Your task to perform on an android device: change the clock display to digital Image 0: 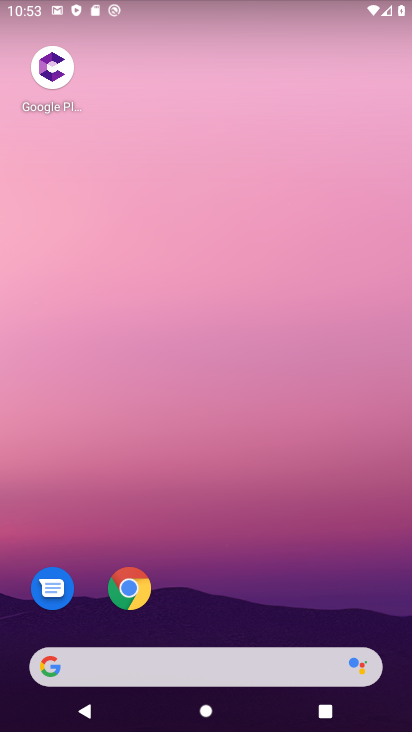
Step 0: drag from (203, 643) to (184, 57)
Your task to perform on an android device: change the clock display to digital Image 1: 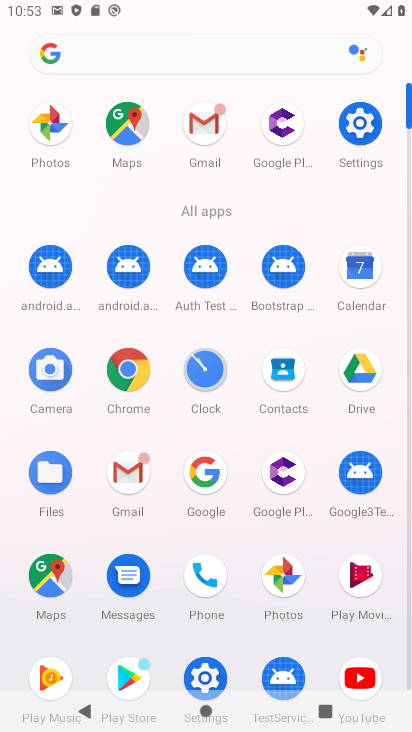
Step 1: click (211, 374)
Your task to perform on an android device: change the clock display to digital Image 2: 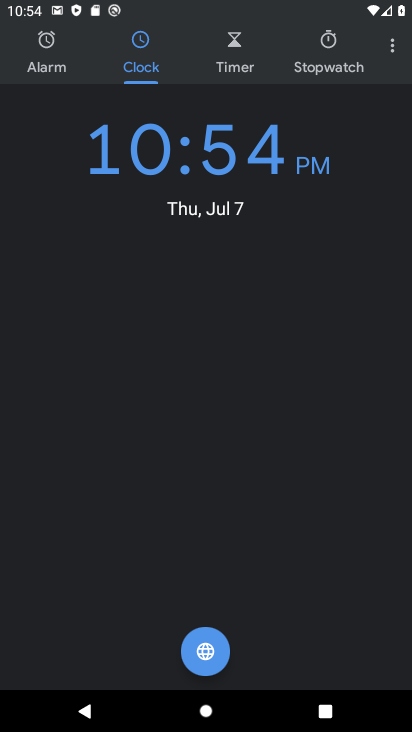
Step 2: click (386, 44)
Your task to perform on an android device: change the clock display to digital Image 3: 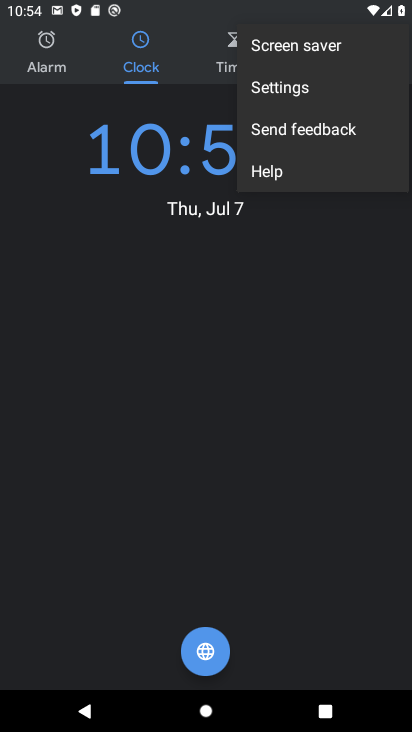
Step 3: click (294, 96)
Your task to perform on an android device: change the clock display to digital Image 4: 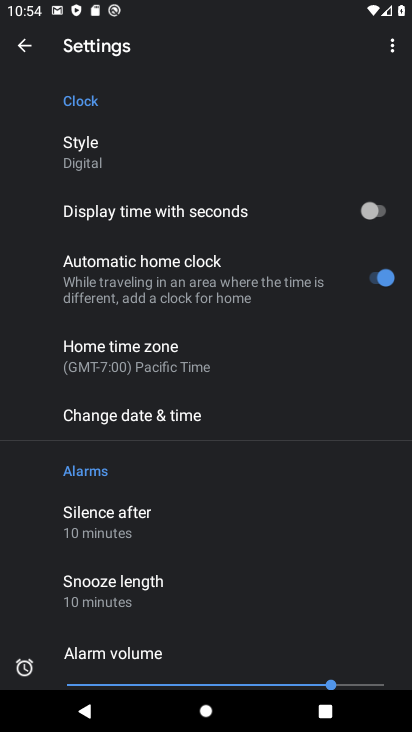
Step 4: click (106, 169)
Your task to perform on an android device: change the clock display to digital Image 5: 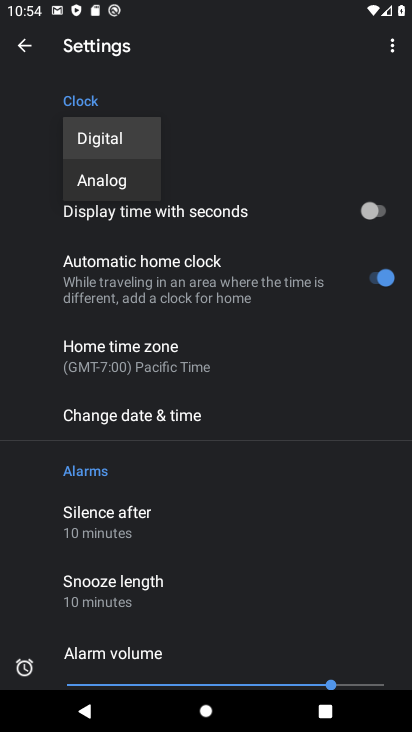
Step 5: click (114, 138)
Your task to perform on an android device: change the clock display to digital Image 6: 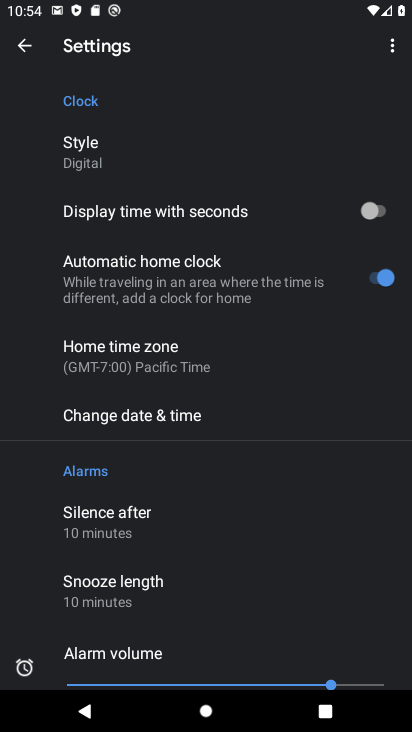
Step 6: task complete